Your task to perform on an android device: open app "PlayWell" (install if not already installed) Image 0: 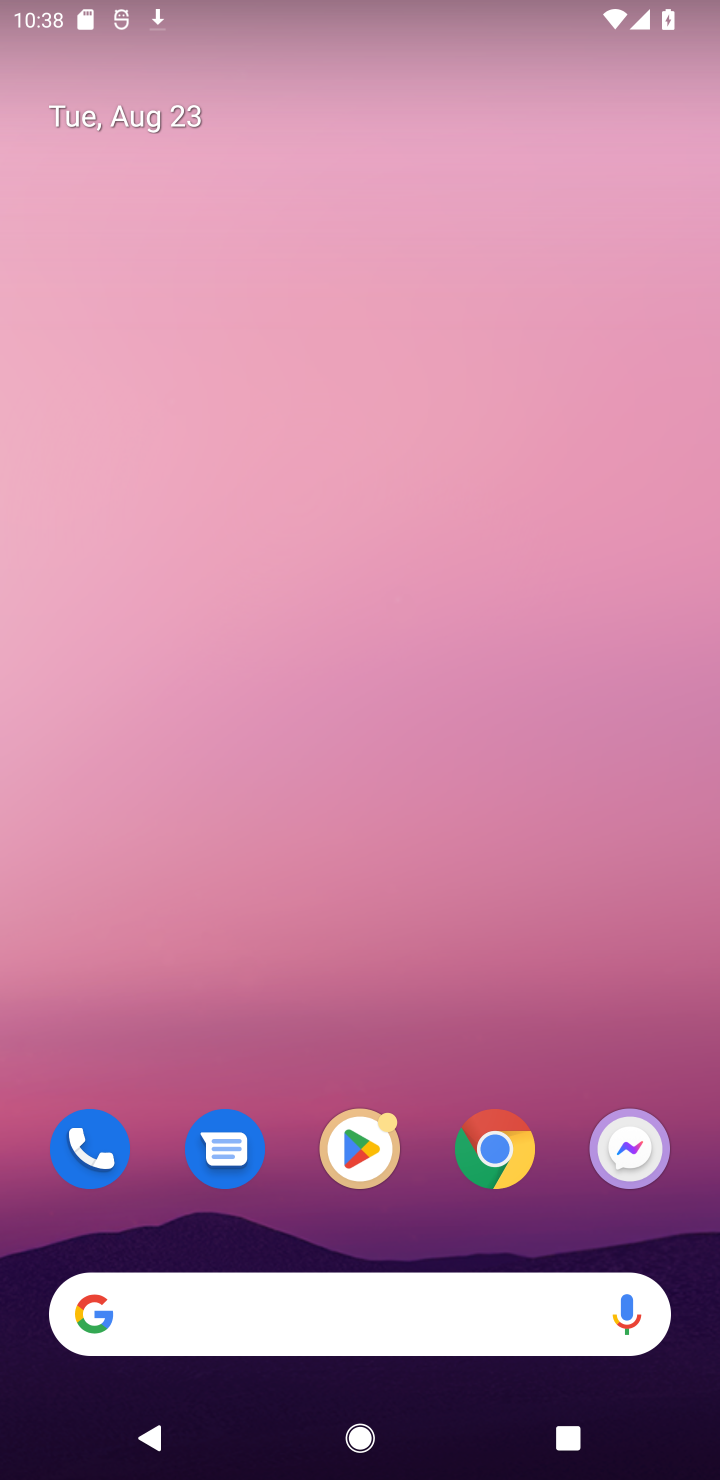
Step 0: click (377, 1138)
Your task to perform on an android device: open app "PlayWell" (install if not already installed) Image 1: 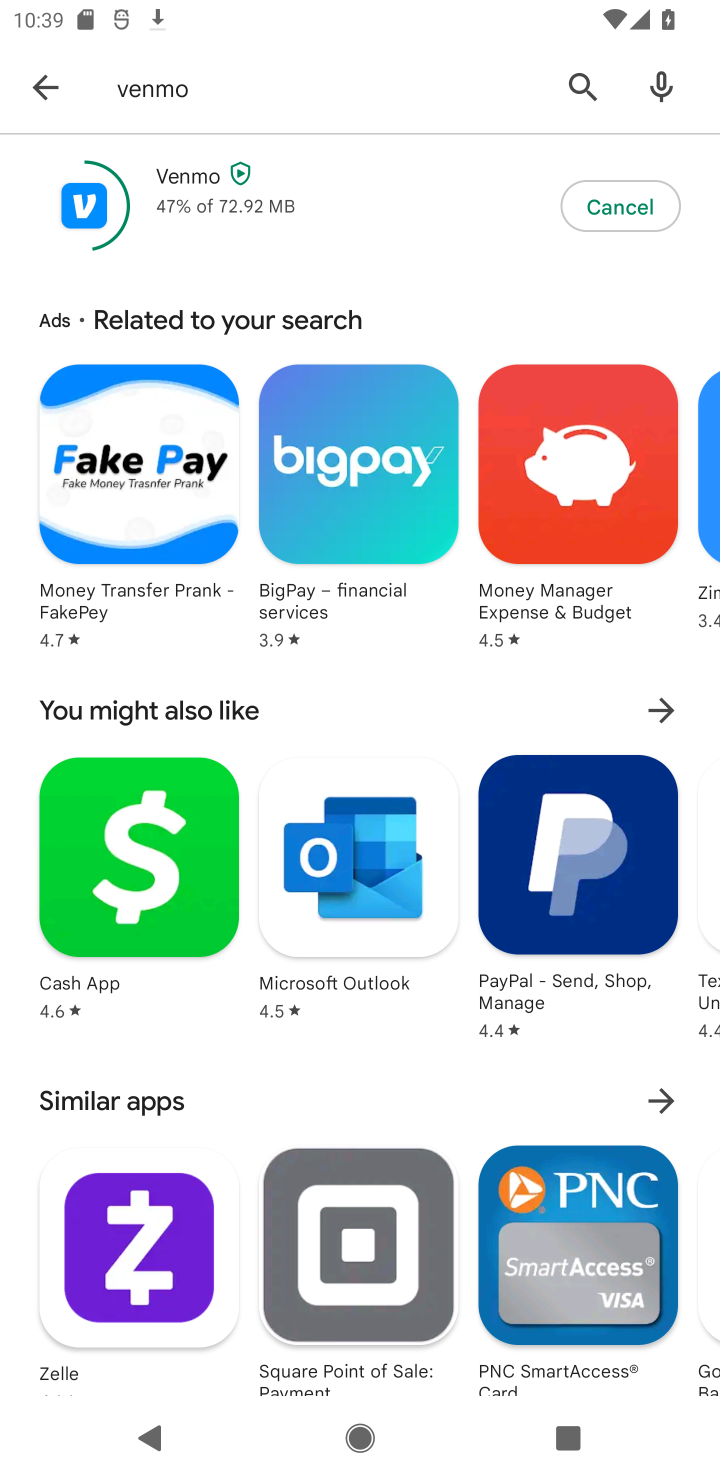
Step 1: click (566, 100)
Your task to perform on an android device: open app "PlayWell" (install if not already installed) Image 2: 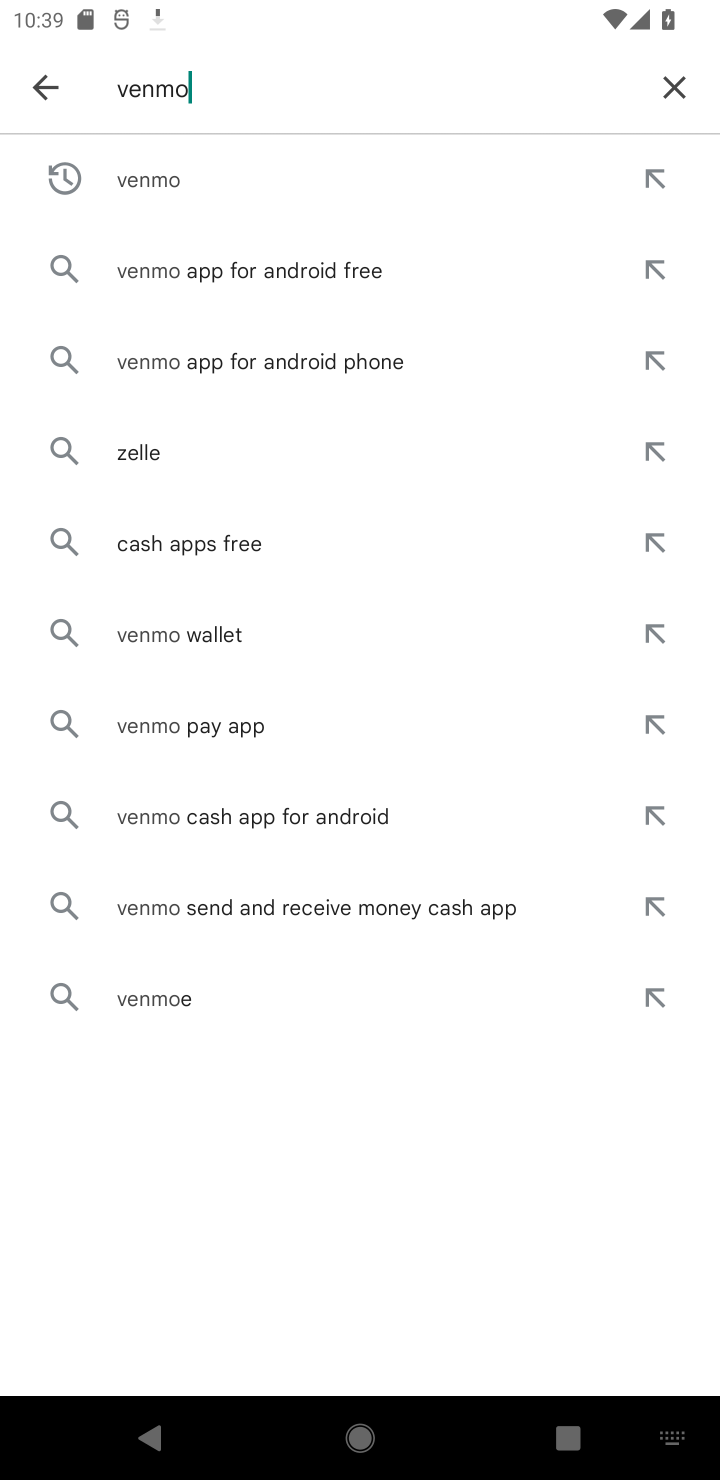
Step 2: click (651, 87)
Your task to perform on an android device: open app "PlayWell" (install if not already installed) Image 3: 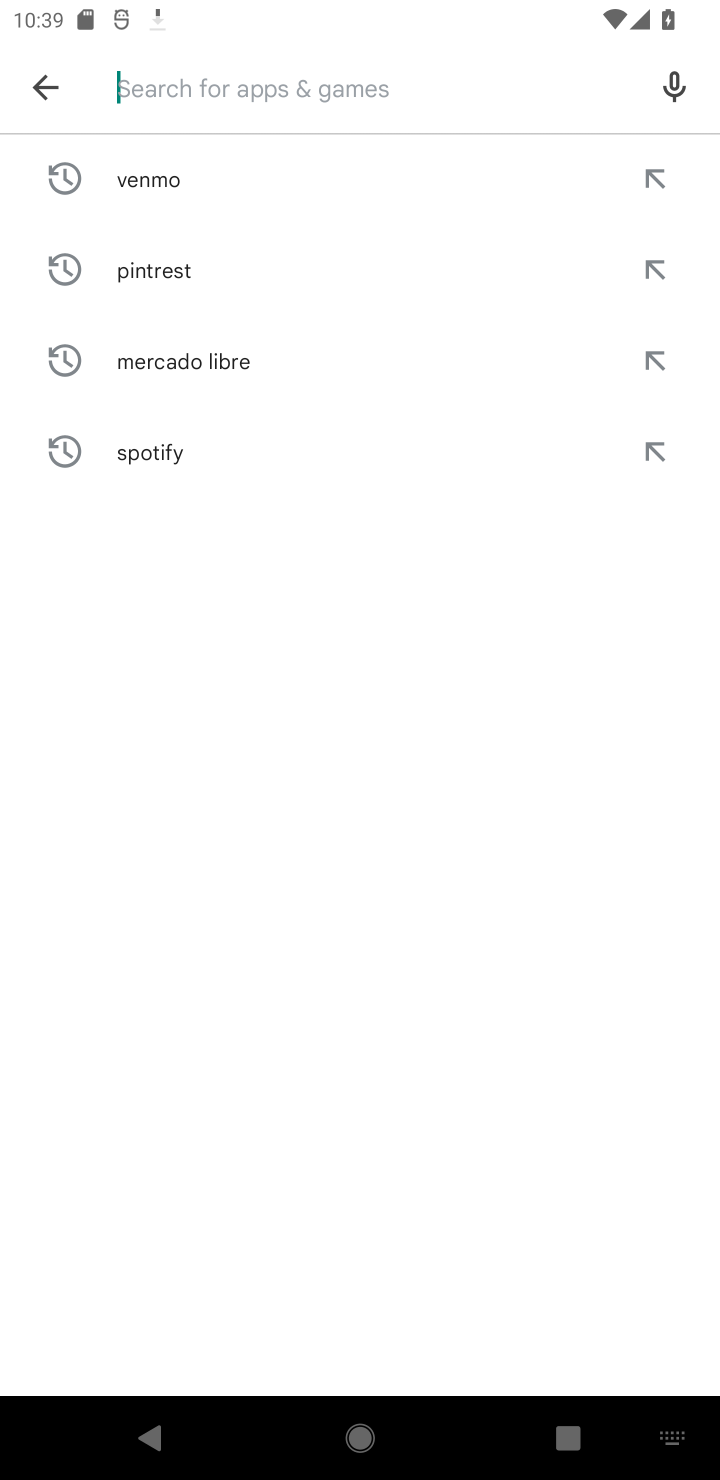
Step 3: type "playwell"
Your task to perform on an android device: open app "PlayWell" (install if not already installed) Image 4: 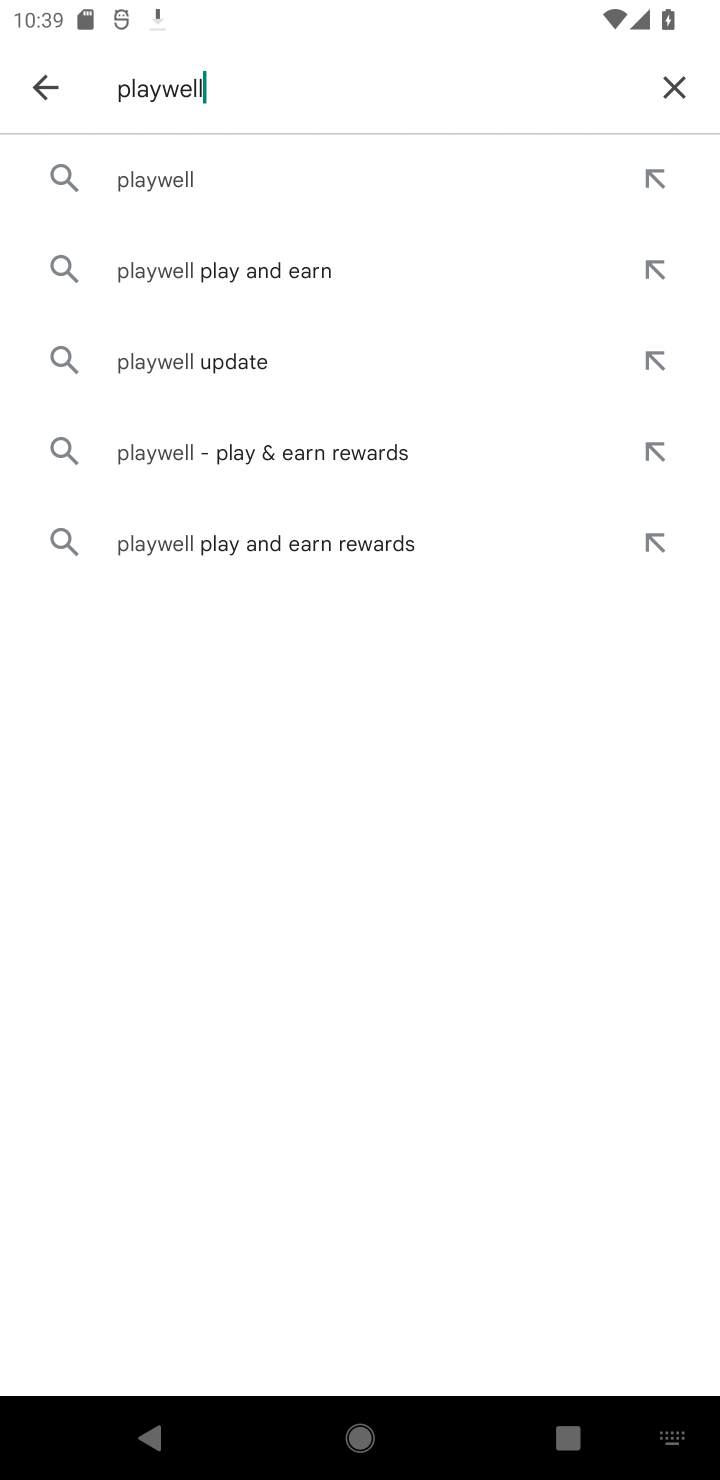
Step 4: click (230, 204)
Your task to perform on an android device: open app "PlayWell" (install if not already installed) Image 5: 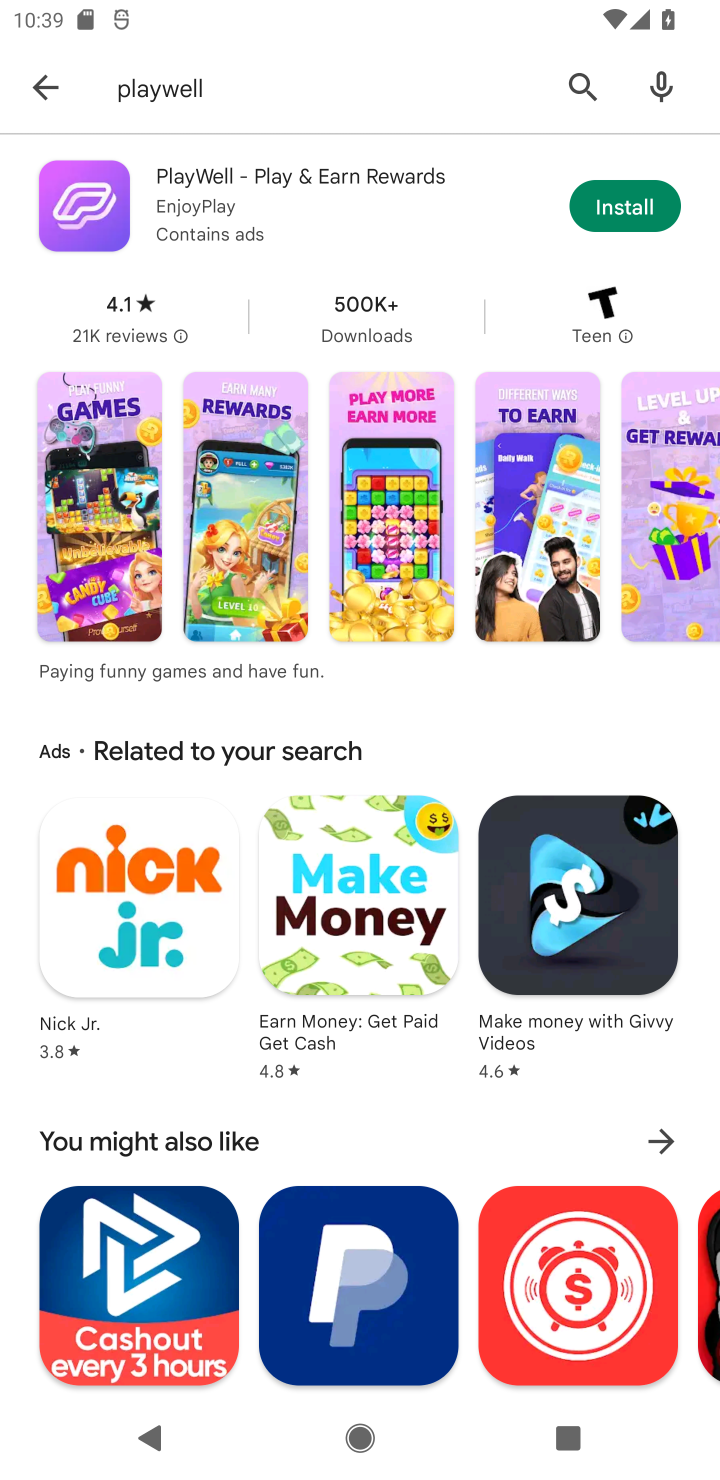
Step 5: click (651, 196)
Your task to perform on an android device: open app "PlayWell" (install if not already installed) Image 6: 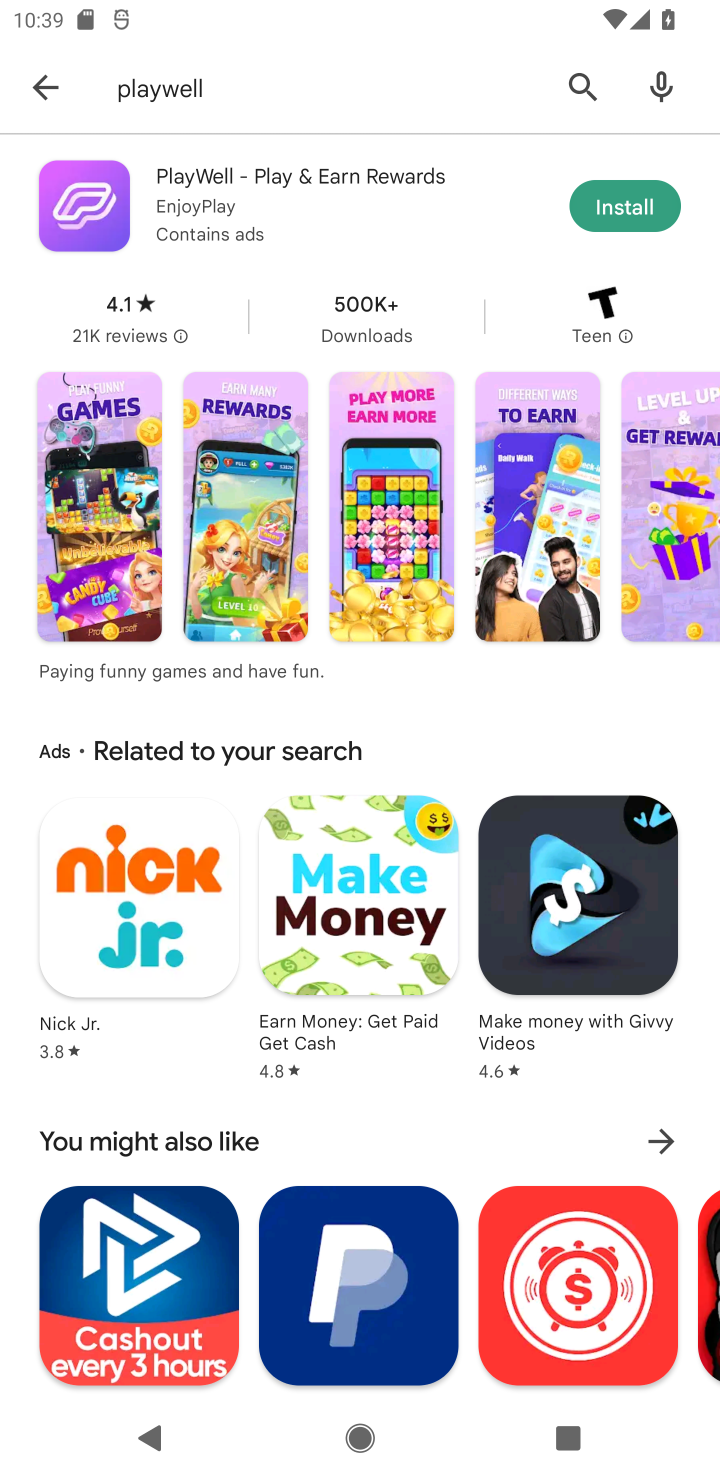
Step 6: task complete